Your task to perform on an android device: Open Youtube and go to "Your channel" Image 0: 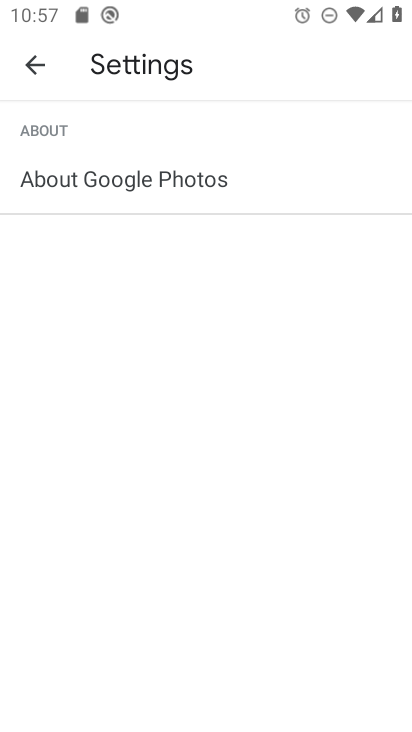
Step 0: press home button
Your task to perform on an android device: Open Youtube and go to "Your channel" Image 1: 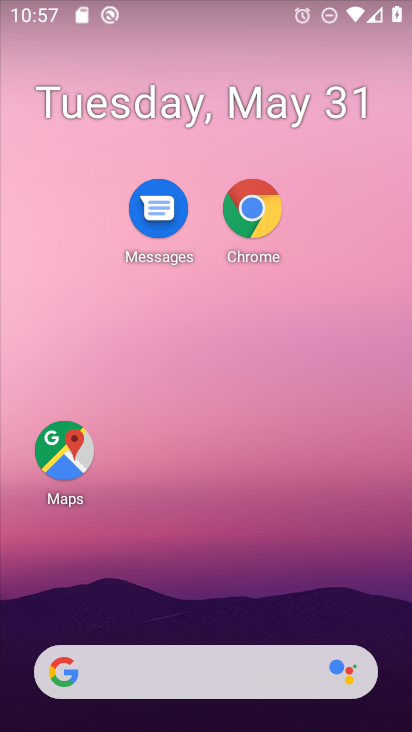
Step 1: drag from (218, 617) to (196, 79)
Your task to perform on an android device: Open Youtube and go to "Your channel" Image 2: 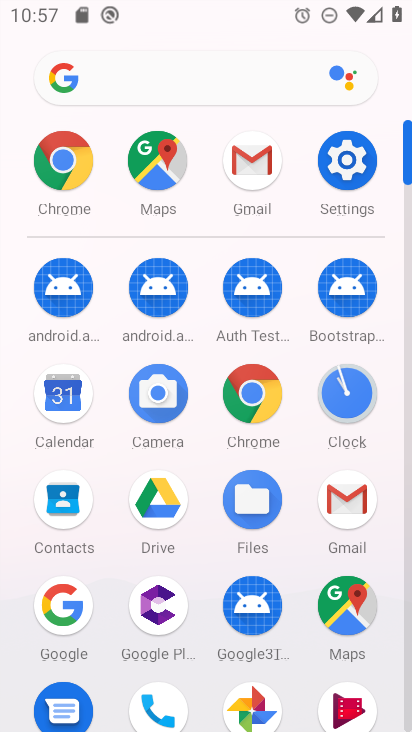
Step 2: drag from (303, 646) to (306, 186)
Your task to perform on an android device: Open Youtube and go to "Your channel" Image 3: 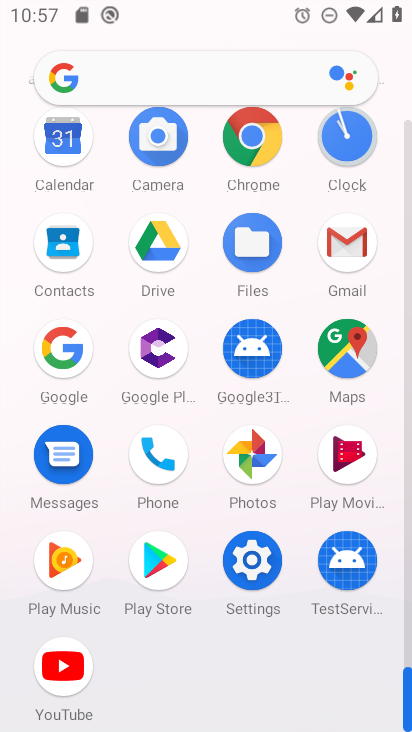
Step 3: click (60, 660)
Your task to perform on an android device: Open Youtube and go to "Your channel" Image 4: 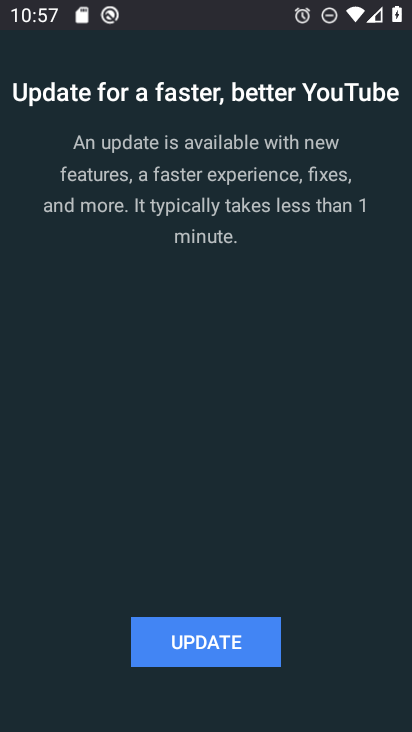
Step 4: click (206, 640)
Your task to perform on an android device: Open Youtube and go to "Your channel" Image 5: 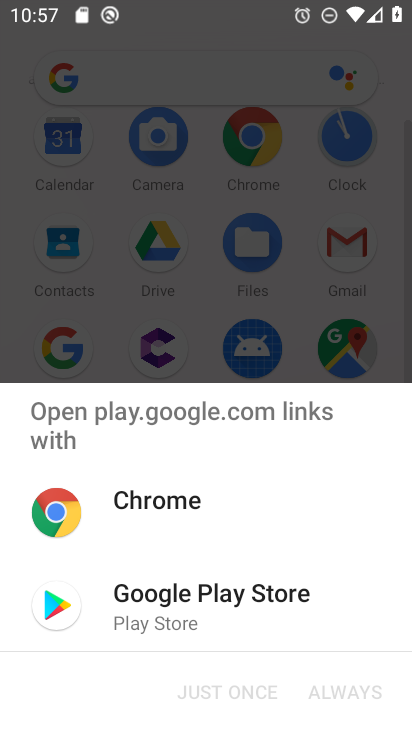
Step 5: click (131, 605)
Your task to perform on an android device: Open Youtube and go to "Your channel" Image 6: 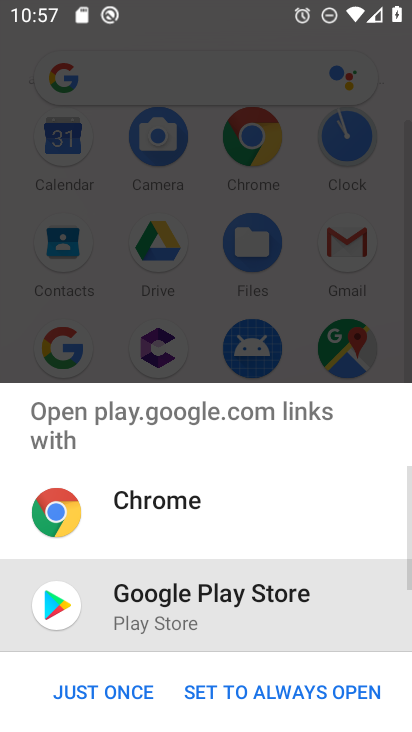
Step 6: click (101, 684)
Your task to perform on an android device: Open Youtube and go to "Your channel" Image 7: 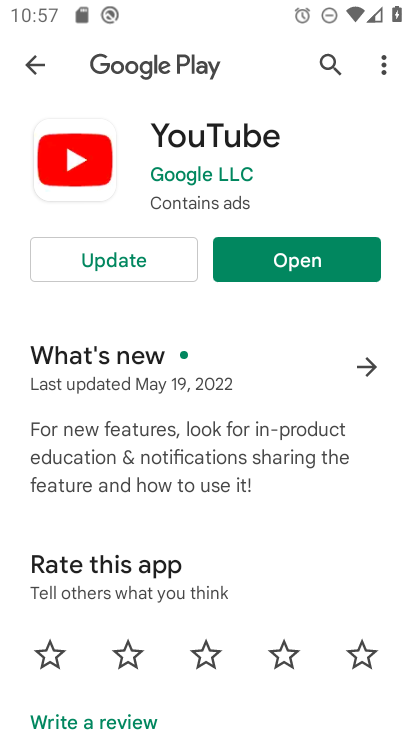
Step 7: click (120, 259)
Your task to perform on an android device: Open Youtube and go to "Your channel" Image 8: 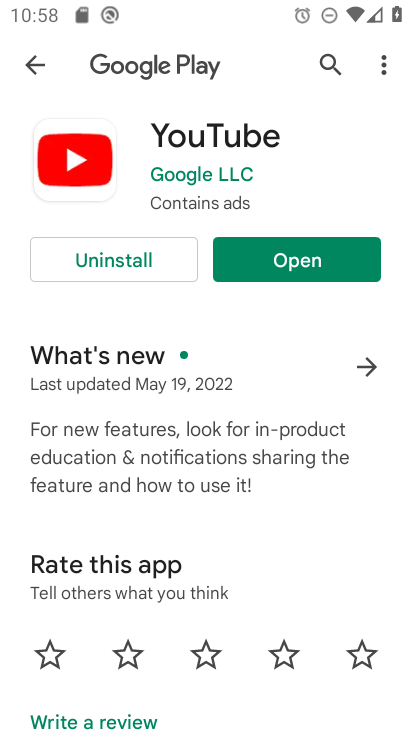
Step 8: click (303, 260)
Your task to perform on an android device: Open Youtube and go to "Your channel" Image 9: 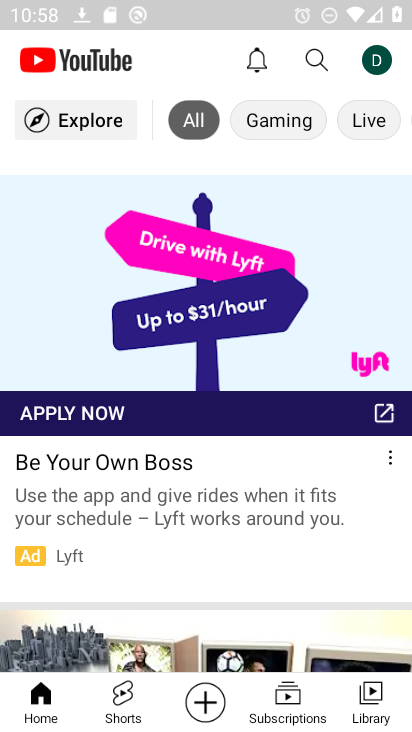
Step 9: click (377, 56)
Your task to perform on an android device: Open Youtube and go to "Your channel" Image 10: 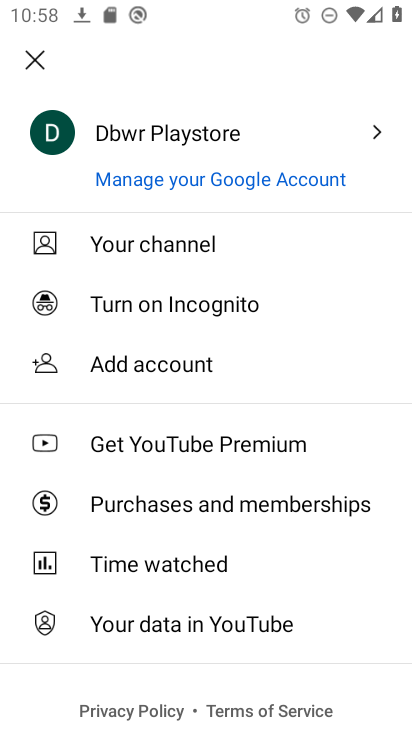
Step 10: click (224, 235)
Your task to perform on an android device: Open Youtube and go to "Your channel" Image 11: 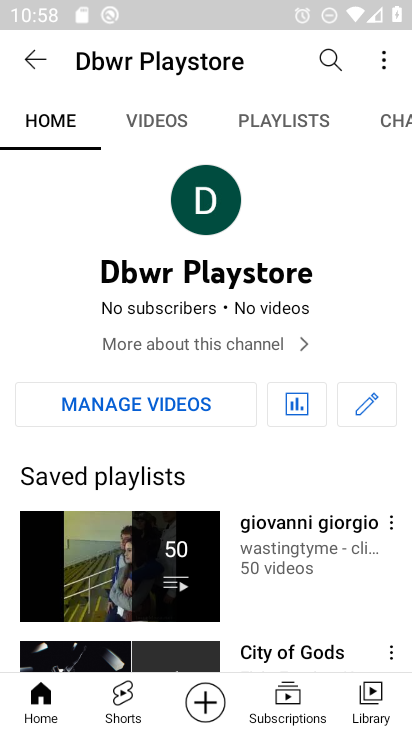
Step 11: task complete